Your task to perform on an android device: star an email in the gmail app Image 0: 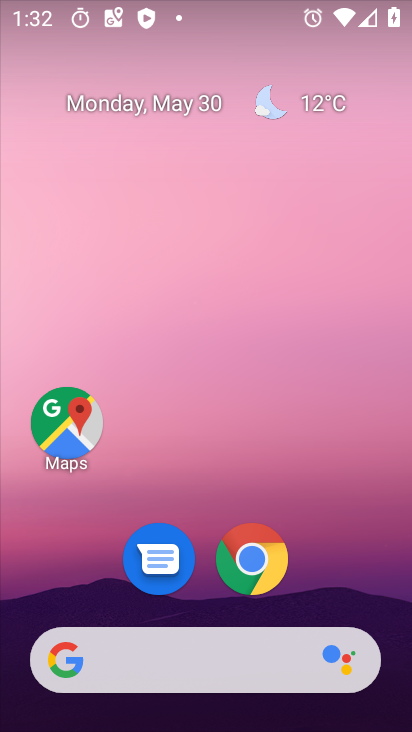
Step 0: drag from (315, 489) to (306, 15)
Your task to perform on an android device: star an email in the gmail app Image 1: 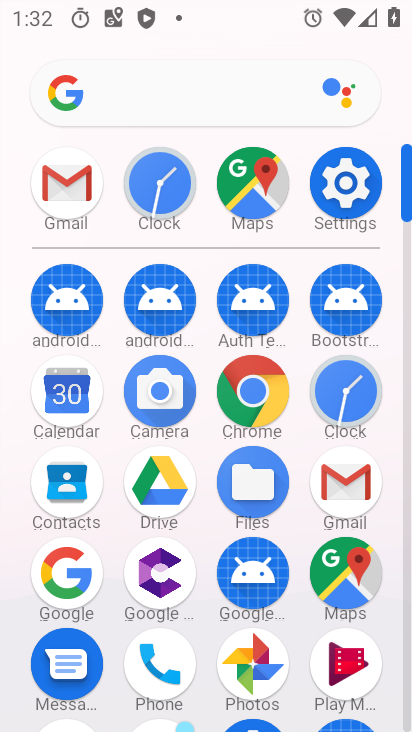
Step 1: click (68, 175)
Your task to perform on an android device: star an email in the gmail app Image 2: 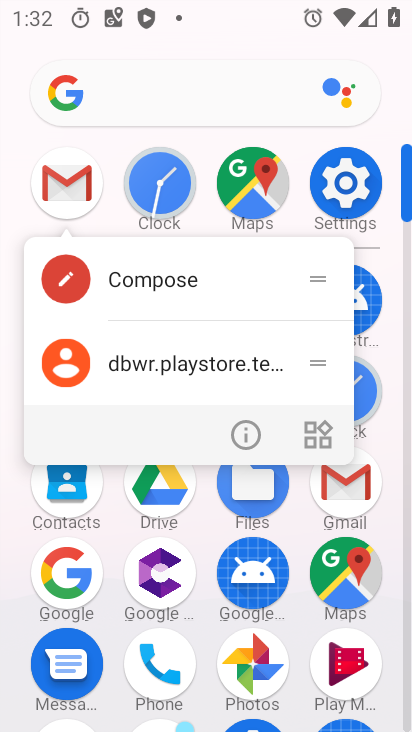
Step 2: click (79, 170)
Your task to perform on an android device: star an email in the gmail app Image 3: 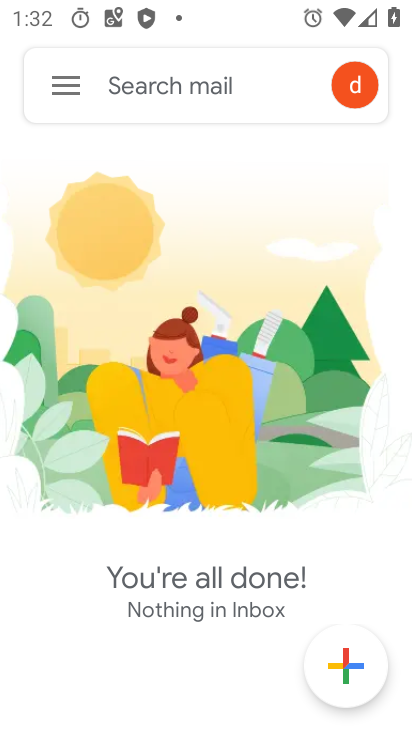
Step 3: click (58, 75)
Your task to perform on an android device: star an email in the gmail app Image 4: 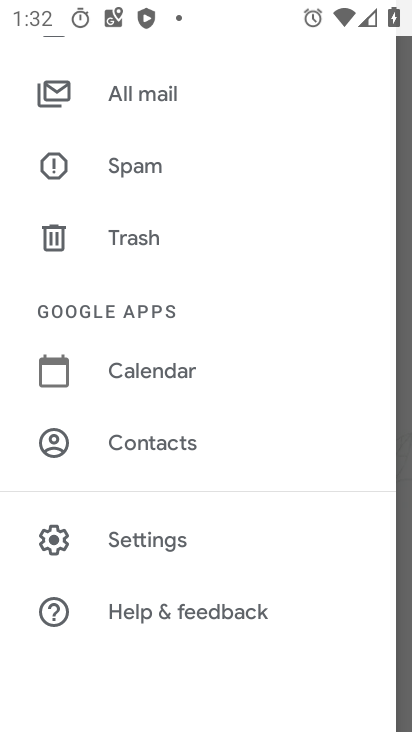
Step 4: click (144, 91)
Your task to perform on an android device: star an email in the gmail app Image 5: 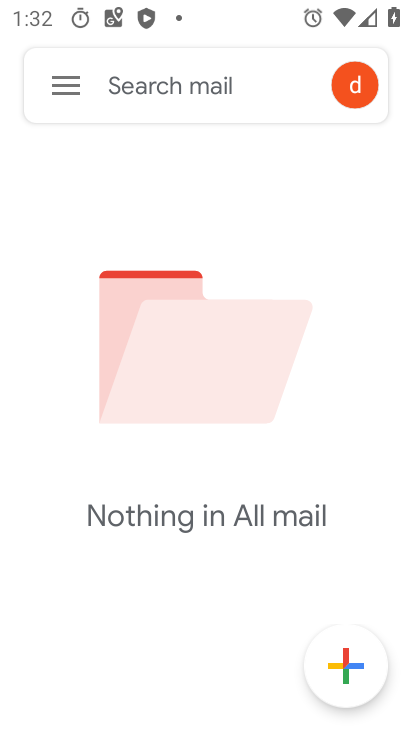
Step 5: task complete